Your task to perform on an android device: open app "DuckDuckGo Privacy Browser" Image 0: 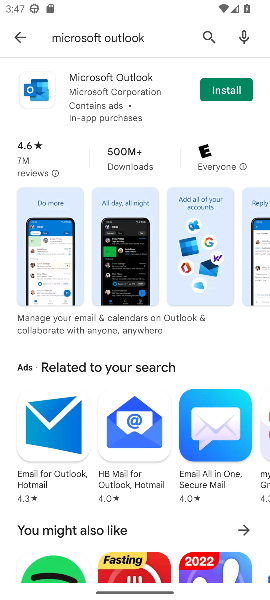
Step 0: press home button
Your task to perform on an android device: open app "DuckDuckGo Privacy Browser" Image 1: 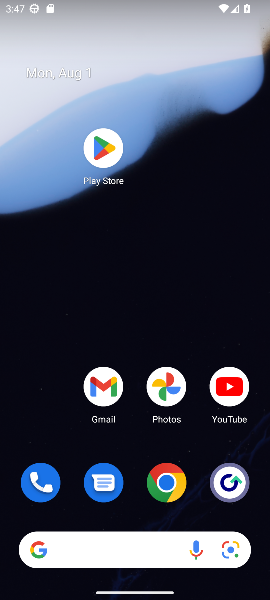
Step 1: click (101, 146)
Your task to perform on an android device: open app "DuckDuckGo Privacy Browser" Image 2: 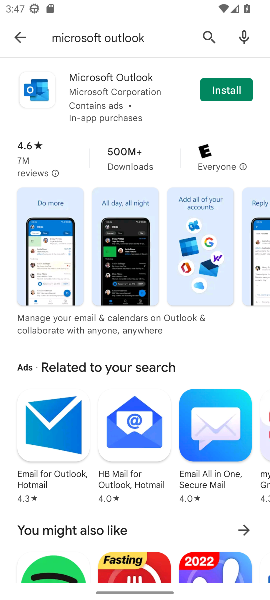
Step 2: click (200, 32)
Your task to perform on an android device: open app "DuckDuckGo Privacy Browser" Image 3: 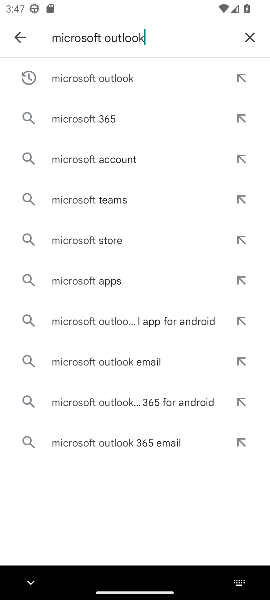
Step 3: click (249, 36)
Your task to perform on an android device: open app "DuckDuckGo Privacy Browser" Image 4: 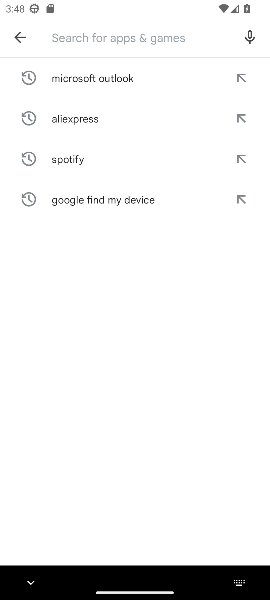
Step 4: type "DuckDuckGo Privacy Browser"
Your task to perform on an android device: open app "DuckDuckGo Privacy Browser" Image 5: 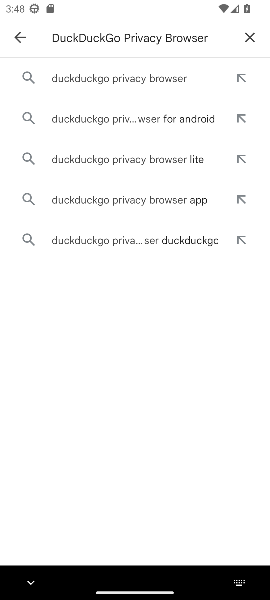
Step 5: click (129, 79)
Your task to perform on an android device: open app "DuckDuckGo Privacy Browser" Image 6: 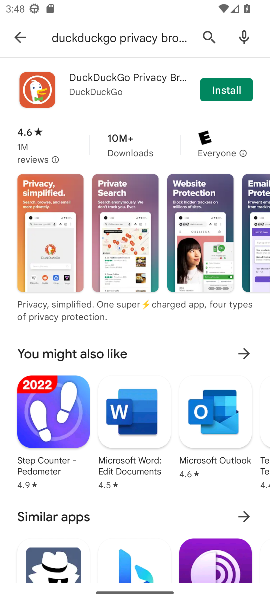
Step 6: task complete